Your task to perform on an android device: Go to Google Image 0: 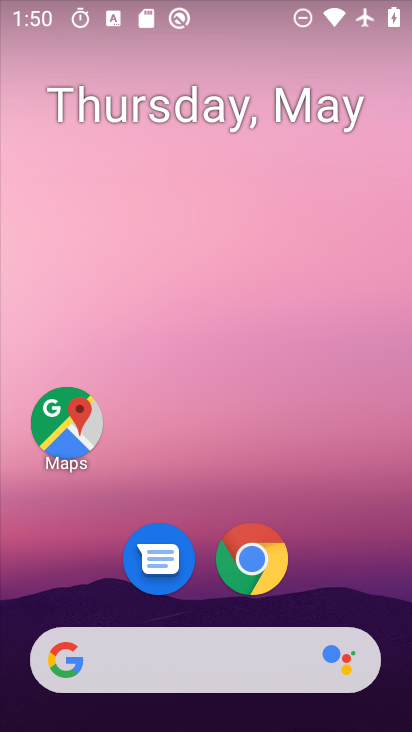
Step 0: drag from (232, 622) to (278, 269)
Your task to perform on an android device: Go to Google Image 1: 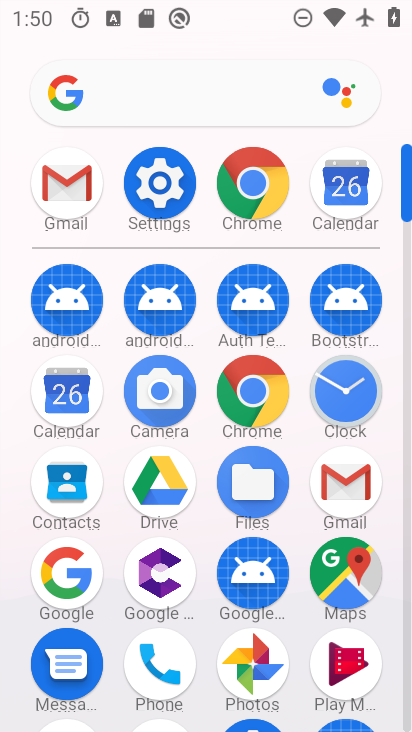
Step 1: drag from (274, 416) to (291, 291)
Your task to perform on an android device: Go to Google Image 2: 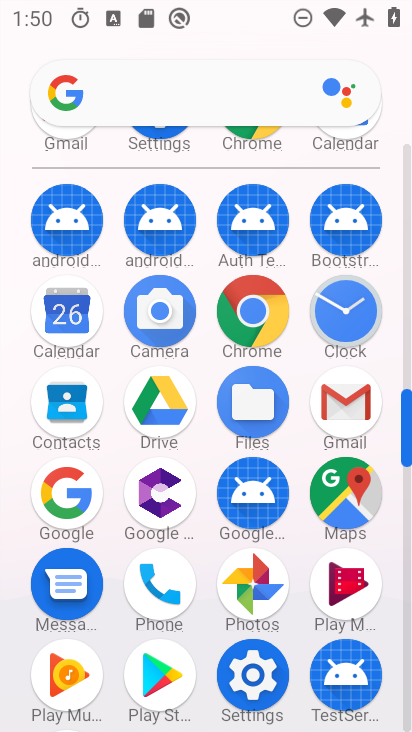
Step 2: click (63, 486)
Your task to perform on an android device: Go to Google Image 3: 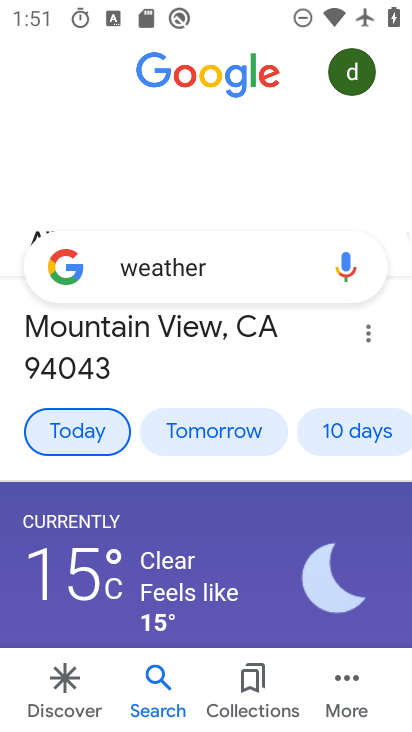
Step 3: task complete